Your task to perform on an android device: Search for seafood restaurants on Google Maps Image 0: 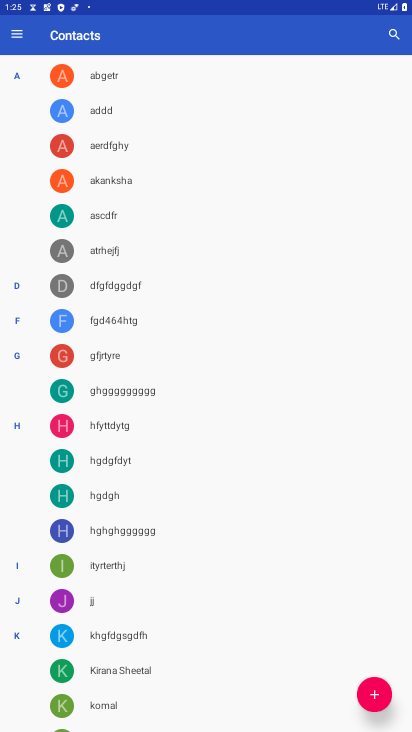
Step 0: press home button
Your task to perform on an android device: Search for seafood restaurants on Google Maps Image 1: 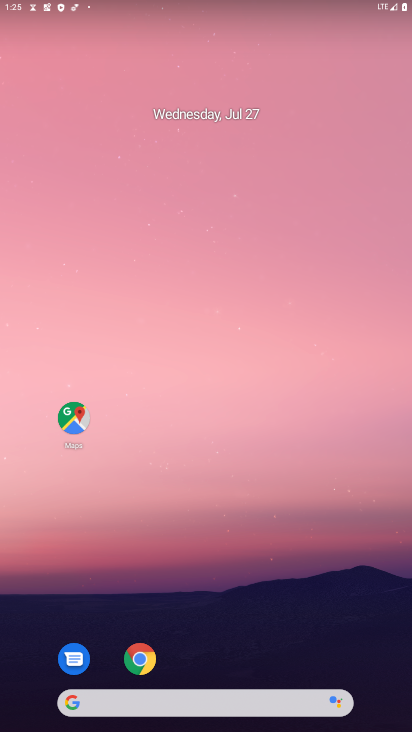
Step 1: drag from (220, 660) to (242, 138)
Your task to perform on an android device: Search for seafood restaurants on Google Maps Image 2: 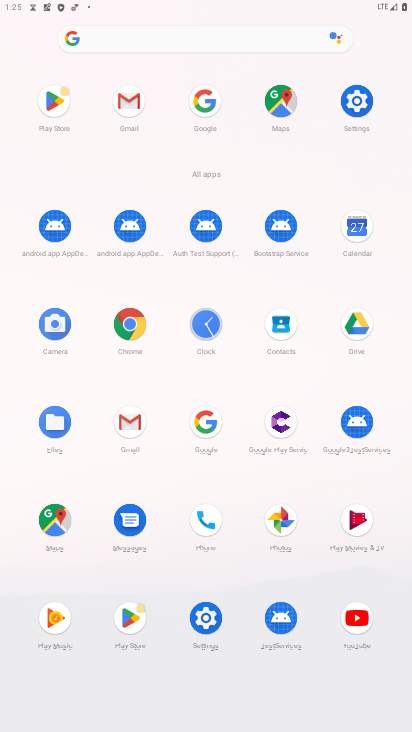
Step 2: click (54, 515)
Your task to perform on an android device: Search for seafood restaurants on Google Maps Image 3: 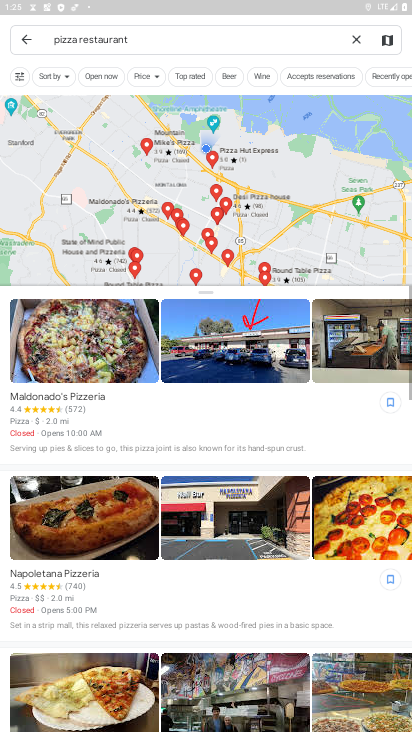
Step 3: click (353, 34)
Your task to perform on an android device: Search for seafood restaurants on Google Maps Image 4: 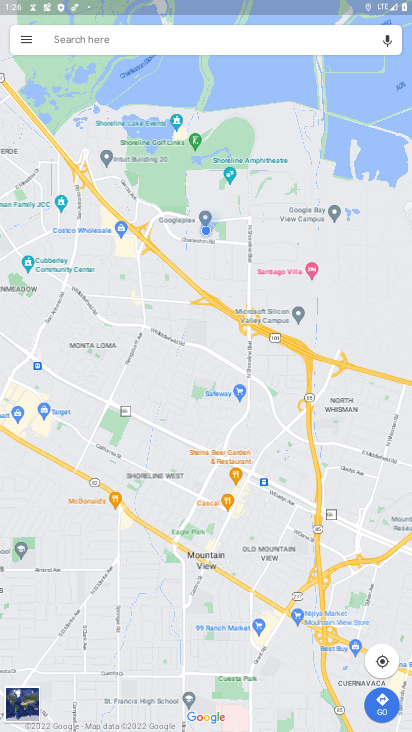
Step 4: click (157, 39)
Your task to perform on an android device: Search for seafood restaurants on Google Maps Image 5: 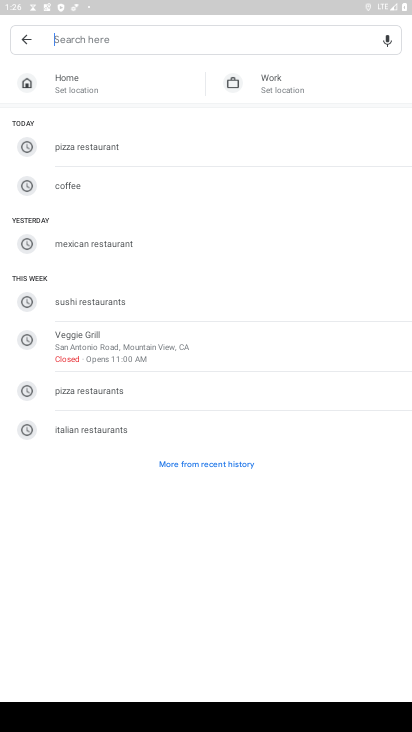
Step 5: type "seafood restaurants"
Your task to perform on an android device: Search for seafood restaurants on Google Maps Image 6: 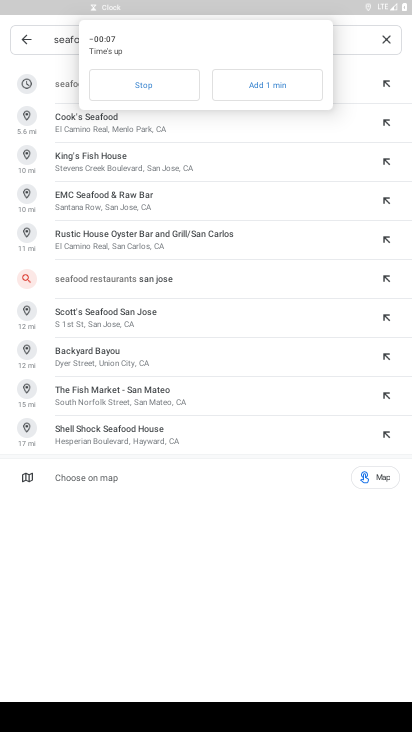
Step 6: click (153, 87)
Your task to perform on an android device: Search for seafood restaurants on Google Maps Image 7: 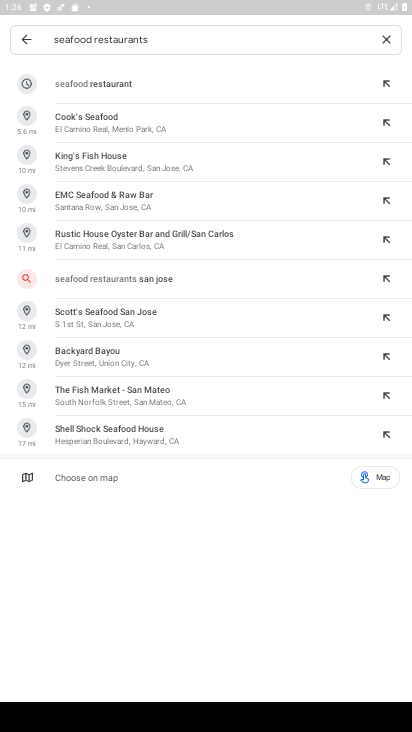
Step 7: click (97, 78)
Your task to perform on an android device: Search for seafood restaurants on Google Maps Image 8: 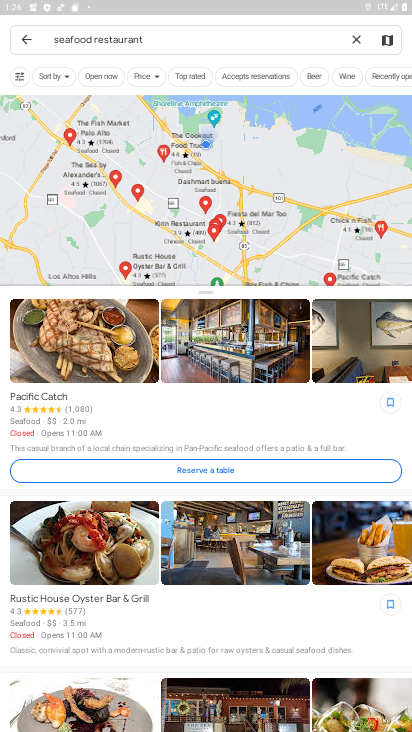
Step 8: task complete